Your task to perform on an android device: Open the Play Movies app and select the watchlist tab. Image 0: 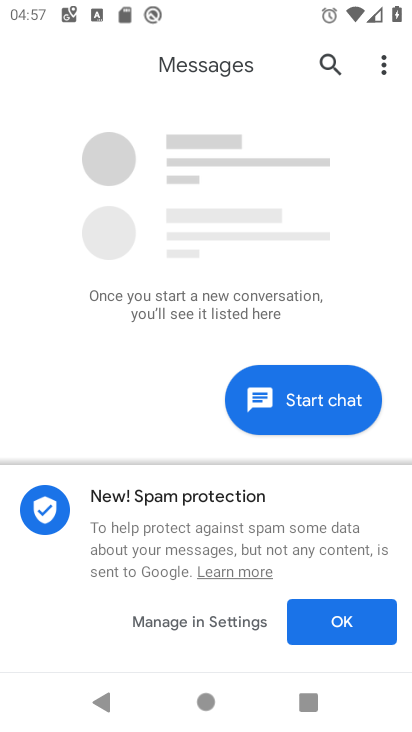
Step 0: press home button
Your task to perform on an android device: Open the Play Movies app and select the watchlist tab. Image 1: 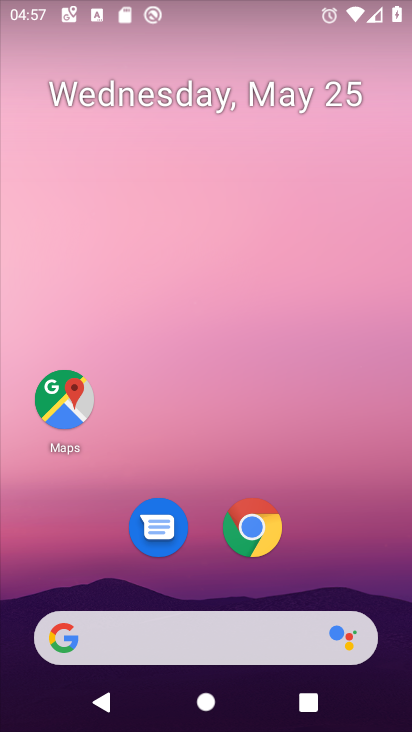
Step 1: drag from (216, 477) to (241, 63)
Your task to perform on an android device: Open the Play Movies app and select the watchlist tab. Image 2: 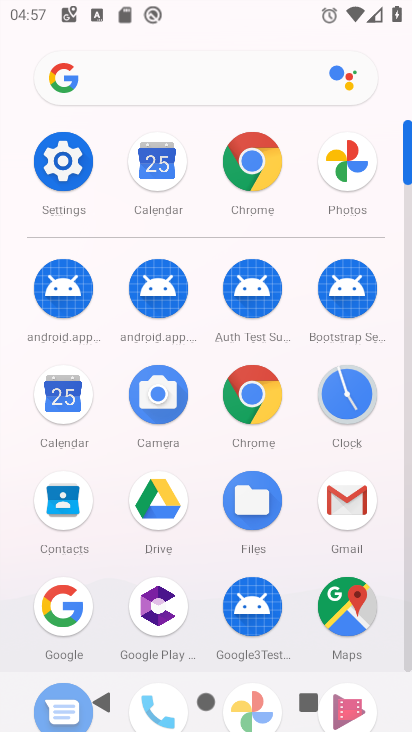
Step 2: drag from (304, 601) to (313, 286)
Your task to perform on an android device: Open the Play Movies app and select the watchlist tab. Image 3: 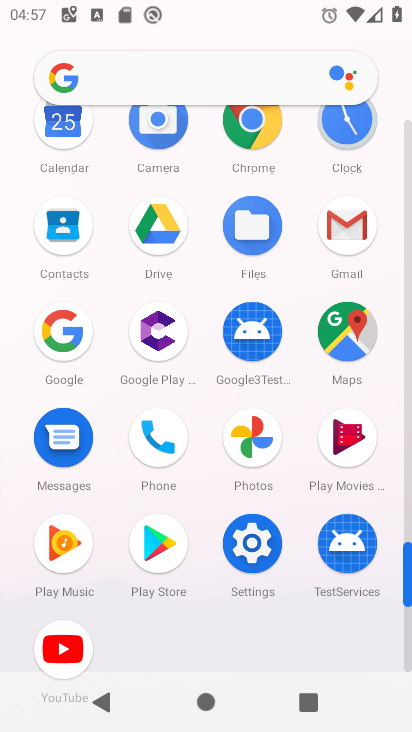
Step 3: click (347, 448)
Your task to perform on an android device: Open the Play Movies app and select the watchlist tab. Image 4: 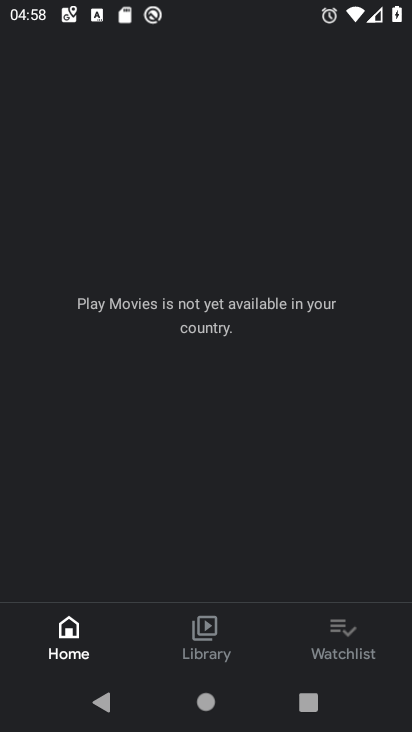
Step 4: click (342, 637)
Your task to perform on an android device: Open the Play Movies app and select the watchlist tab. Image 5: 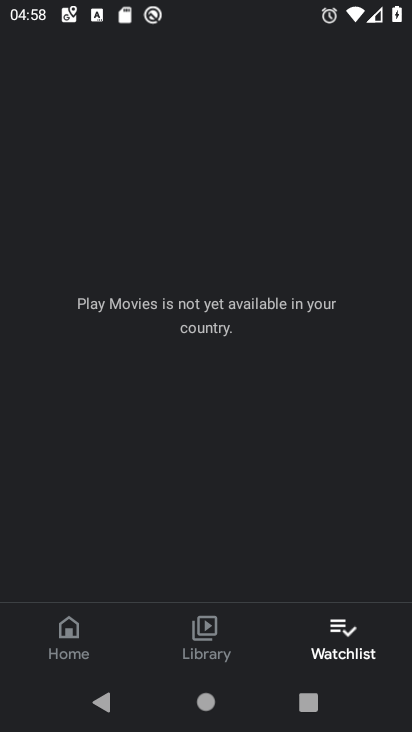
Step 5: click (345, 625)
Your task to perform on an android device: Open the Play Movies app and select the watchlist tab. Image 6: 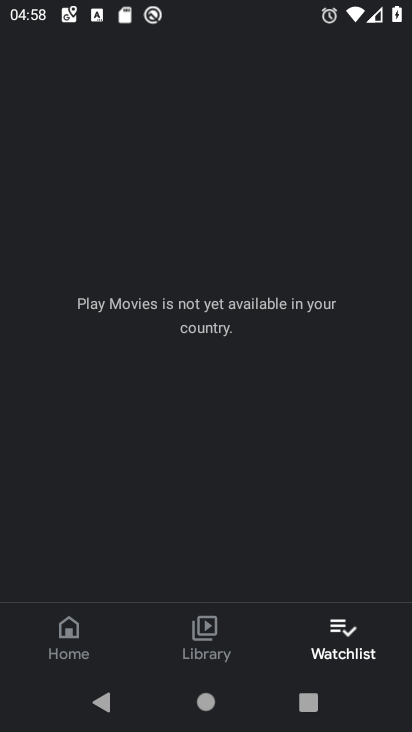
Step 6: task complete